Your task to perform on an android device: Search for sushi restaurants on Maps Image 0: 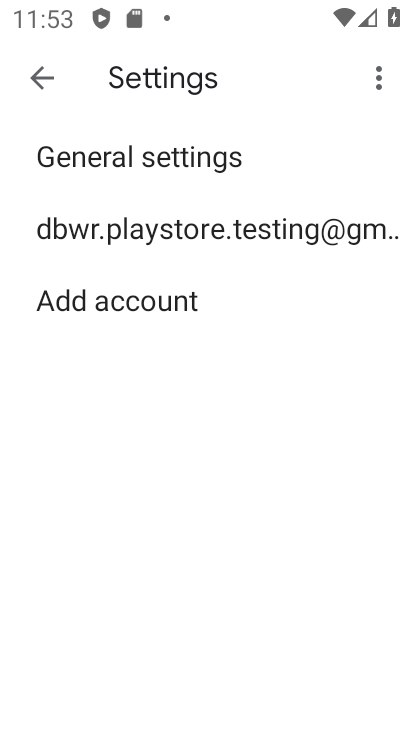
Step 0: press home button
Your task to perform on an android device: Search for sushi restaurants on Maps Image 1: 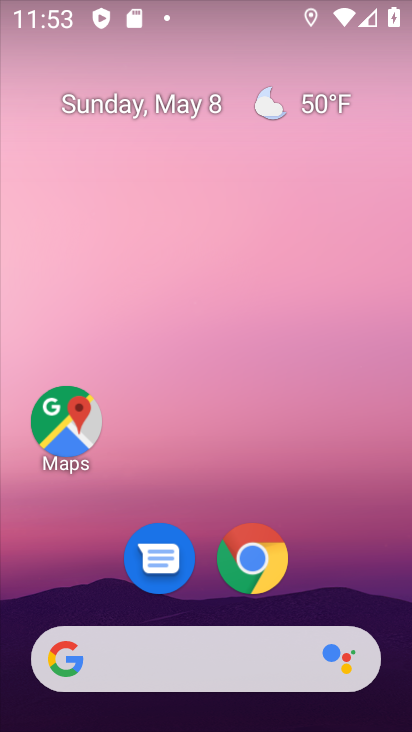
Step 1: drag from (169, 662) to (156, 174)
Your task to perform on an android device: Search for sushi restaurants on Maps Image 2: 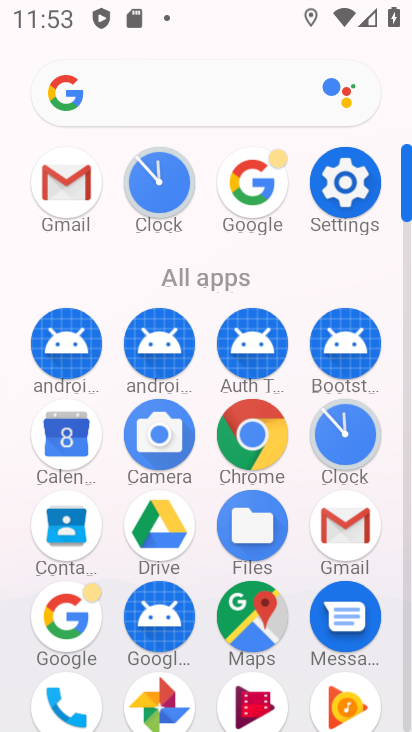
Step 2: click (259, 633)
Your task to perform on an android device: Search for sushi restaurants on Maps Image 3: 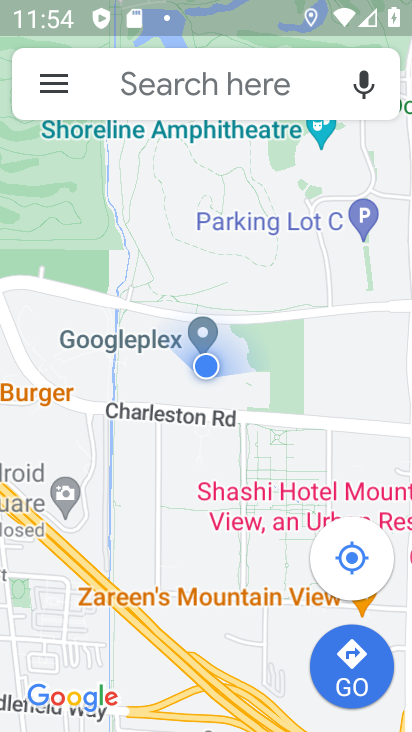
Step 3: click (211, 88)
Your task to perform on an android device: Search for sushi restaurants on Maps Image 4: 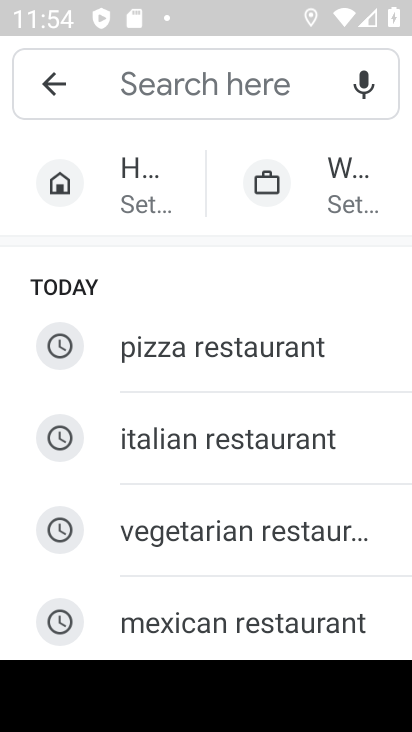
Step 4: drag from (297, 599) to (354, 166)
Your task to perform on an android device: Search for sushi restaurants on Maps Image 5: 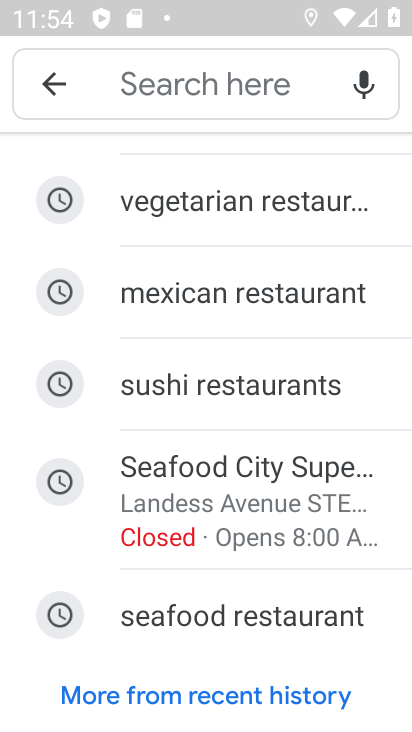
Step 5: click (244, 399)
Your task to perform on an android device: Search for sushi restaurants on Maps Image 6: 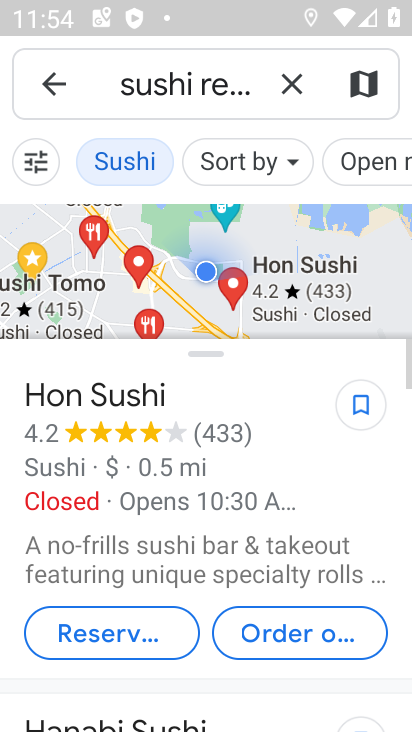
Step 6: task complete